Your task to perform on an android device: Show me the alarms in the clock app Image 0: 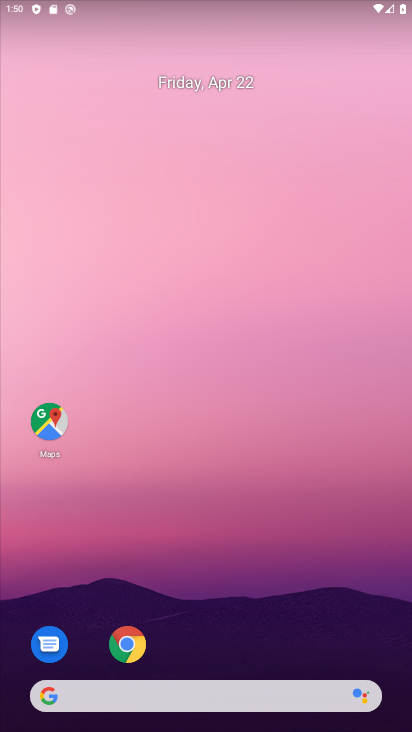
Step 0: drag from (270, 592) to (192, 135)
Your task to perform on an android device: Show me the alarms in the clock app Image 1: 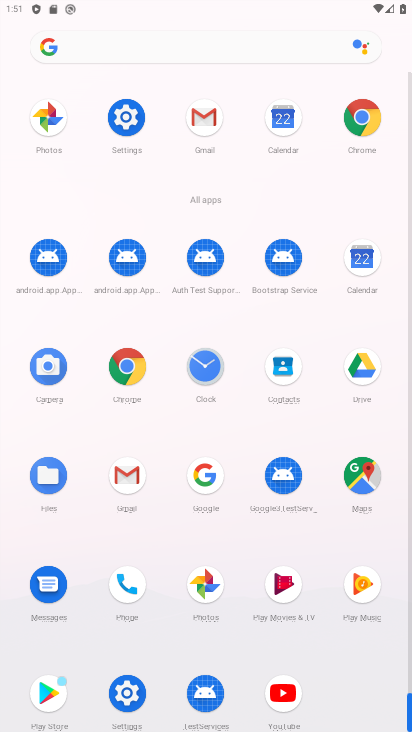
Step 1: click (193, 371)
Your task to perform on an android device: Show me the alarms in the clock app Image 2: 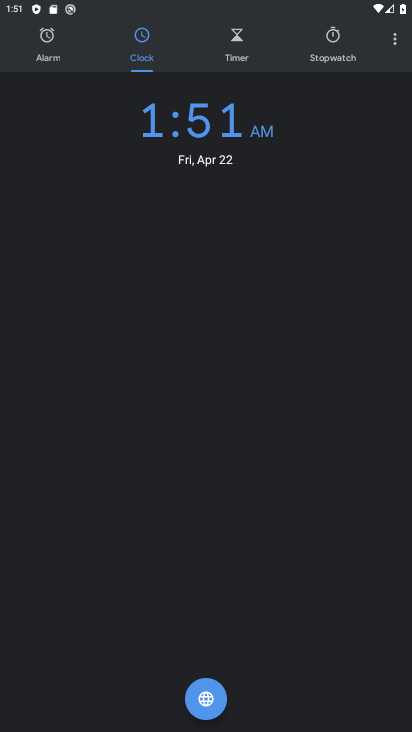
Step 2: click (53, 51)
Your task to perform on an android device: Show me the alarms in the clock app Image 3: 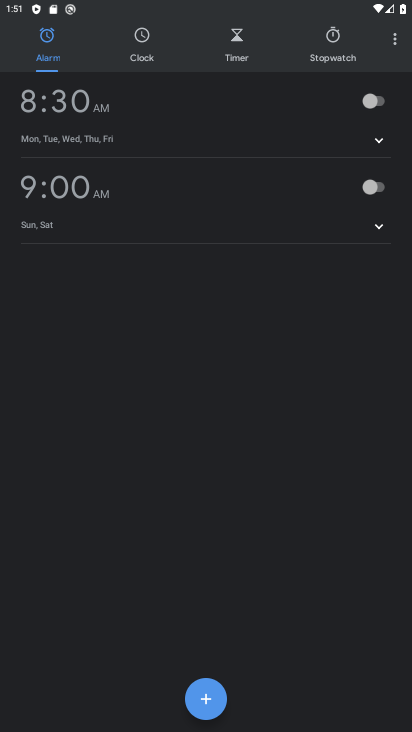
Step 3: task complete